Your task to perform on an android device: turn pop-ups on in chrome Image 0: 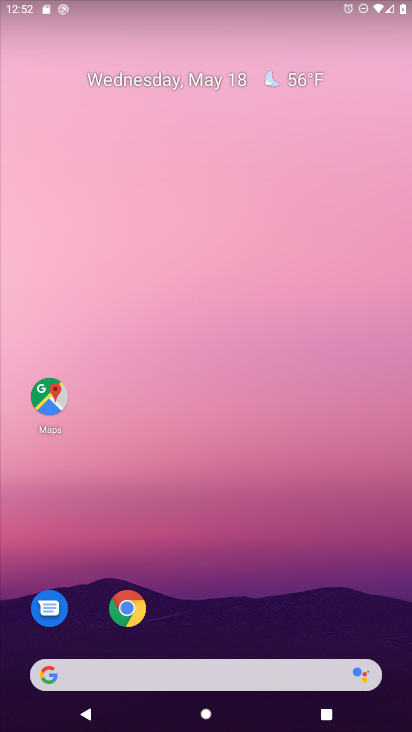
Step 0: drag from (285, 685) to (214, 241)
Your task to perform on an android device: turn pop-ups on in chrome Image 1: 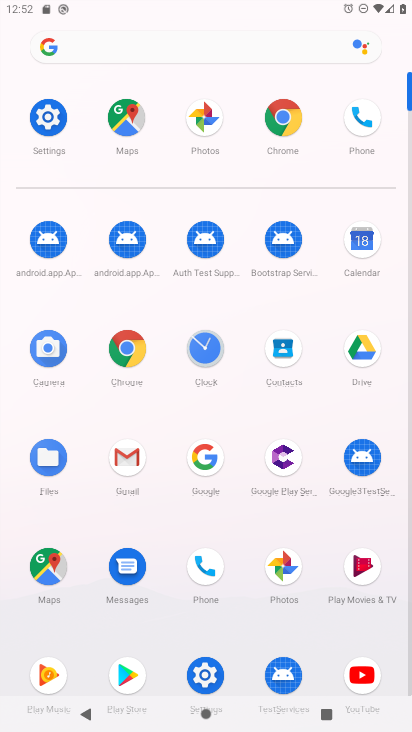
Step 1: click (120, 348)
Your task to perform on an android device: turn pop-ups on in chrome Image 2: 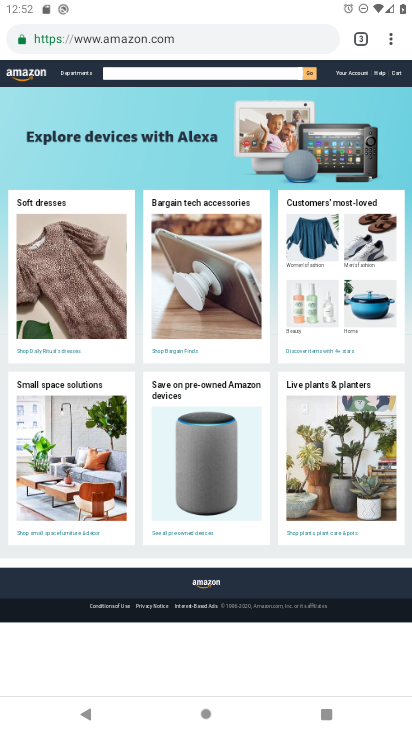
Step 2: click (391, 46)
Your task to perform on an android device: turn pop-ups on in chrome Image 3: 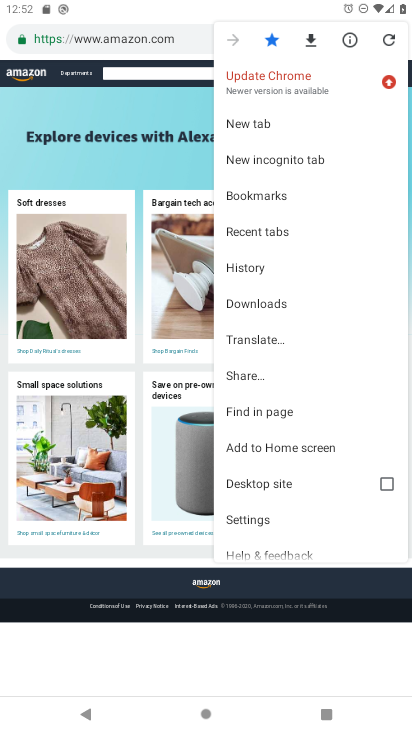
Step 3: click (255, 518)
Your task to perform on an android device: turn pop-ups on in chrome Image 4: 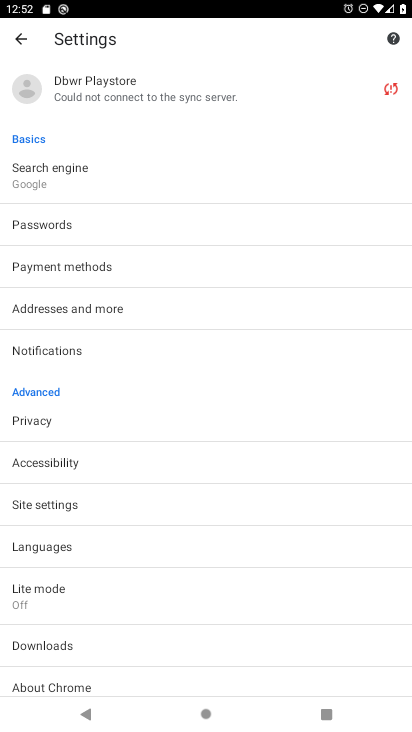
Step 4: click (61, 499)
Your task to perform on an android device: turn pop-ups on in chrome Image 5: 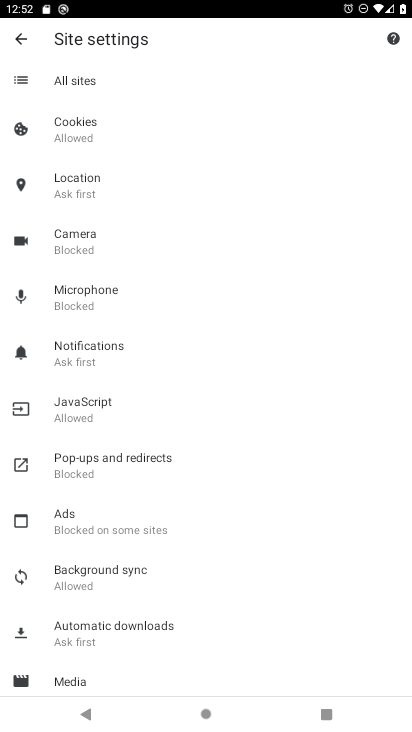
Step 5: click (82, 460)
Your task to perform on an android device: turn pop-ups on in chrome Image 6: 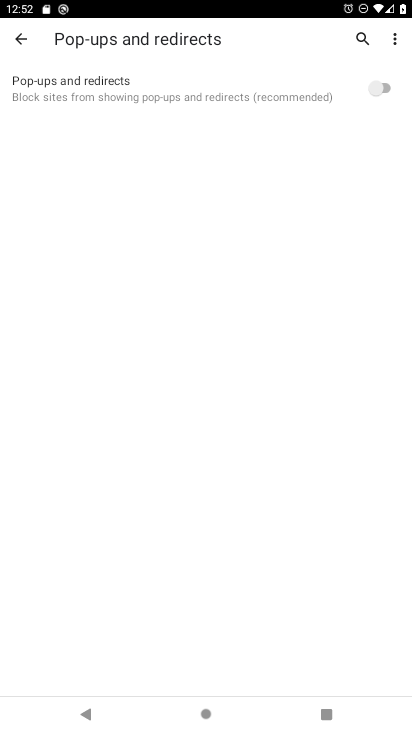
Step 6: task complete